Your task to perform on an android device: Open Google Chrome and open the bookmarks view Image 0: 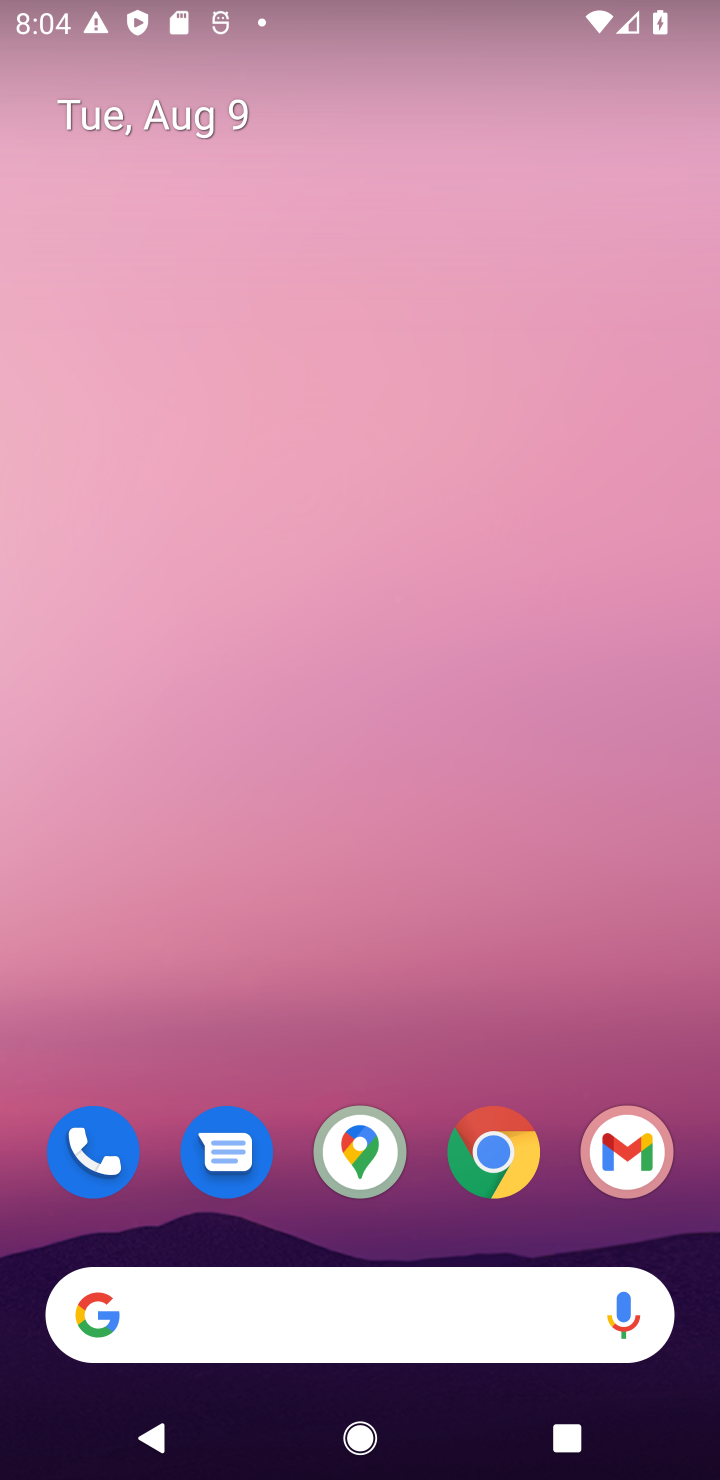
Step 0: click (514, 1127)
Your task to perform on an android device: Open Google Chrome and open the bookmarks view Image 1: 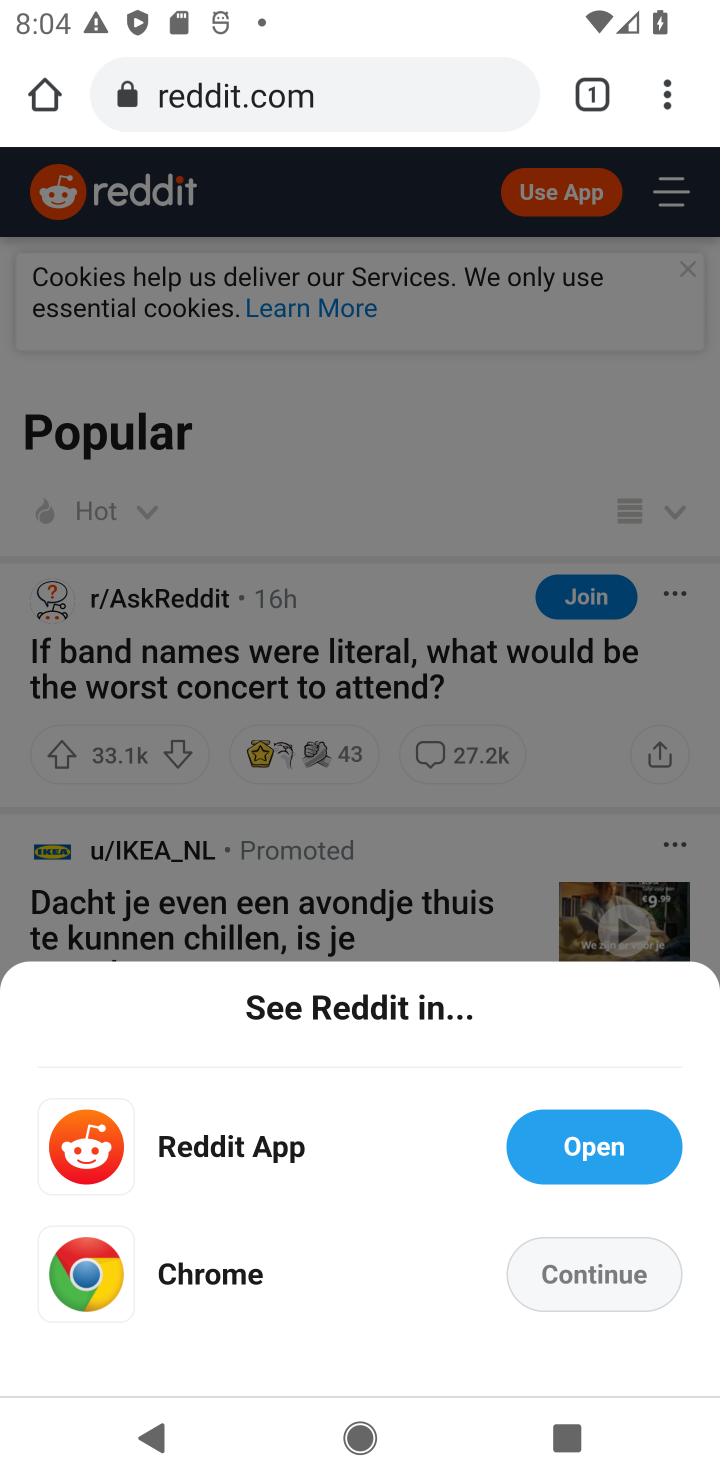
Step 1: click (690, 93)
Your task to perform on an android device: Open Google Chrome and open the bookmarks view Image 2: 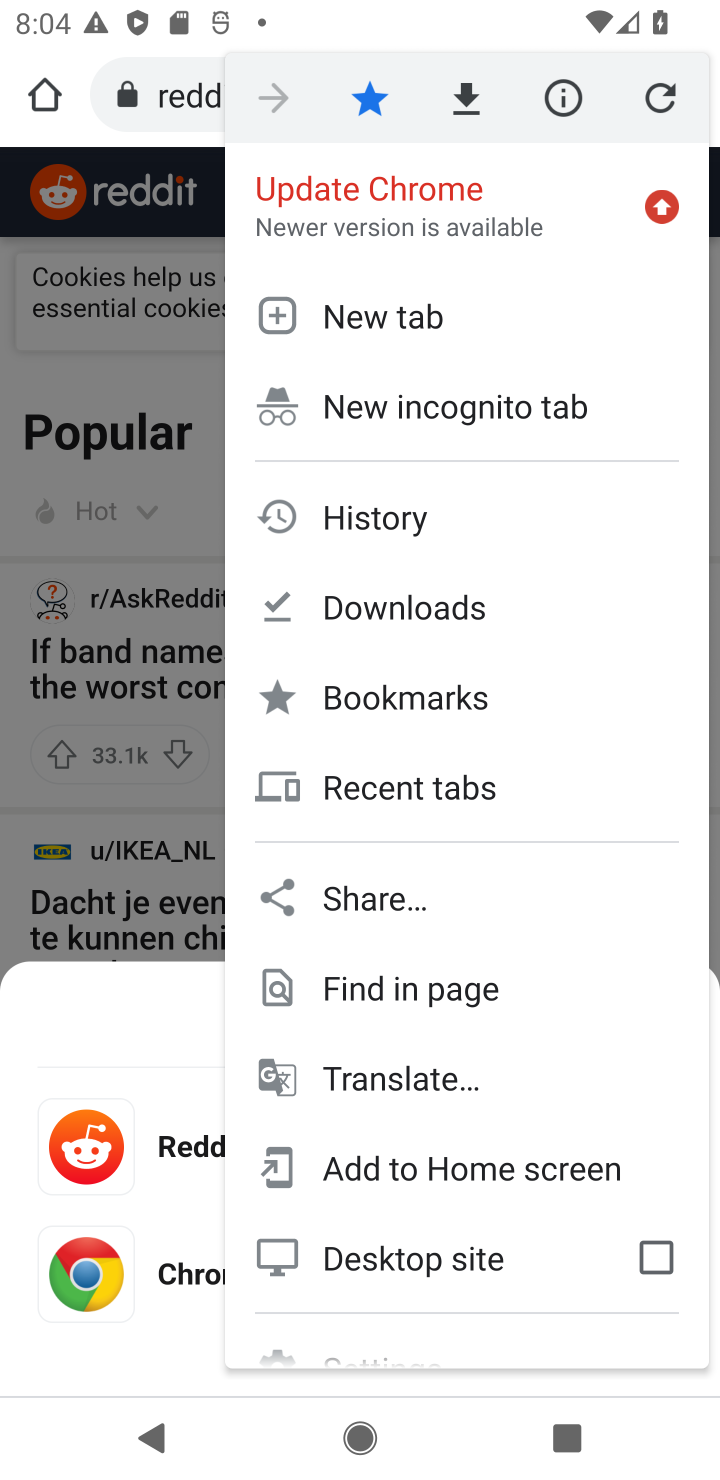
Step 2: click (336, 692)
Your task to perform on an android device: Open Google Chrome and open the bookmarks view Image 3: 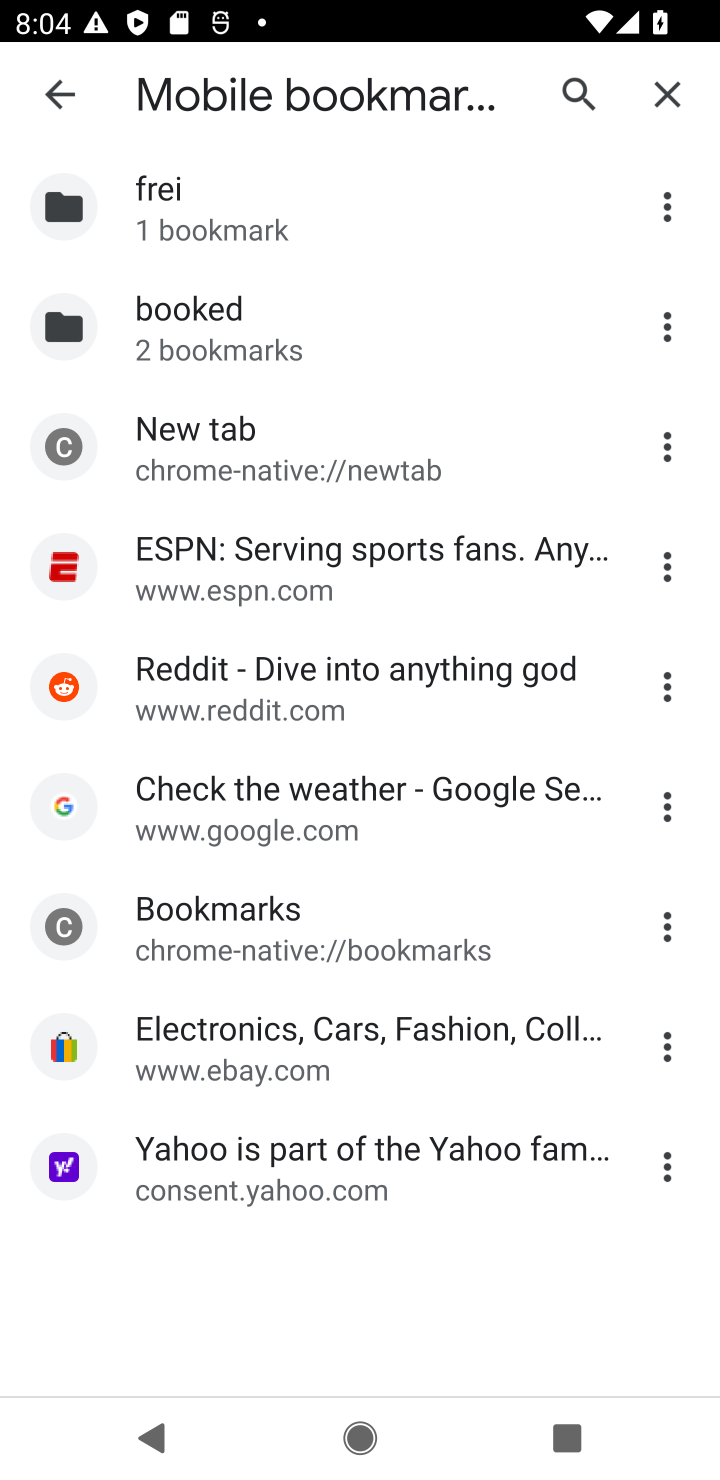
Step 3: task complete